Your task to perform on an android device: What's on the menu at Burger King? Image 0: 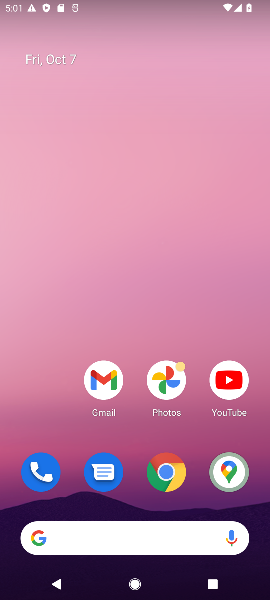
Step 0: click (176, 479)
Your task to perform on an android device: What's on the menu at Burger King? Image 1: 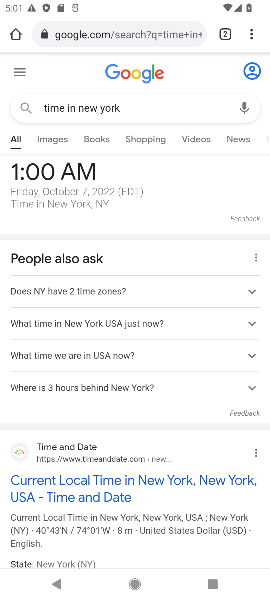
Step 1: click (99, 33)
Your task to perform on an android device: What's on the menu at Burger King? Image 2: 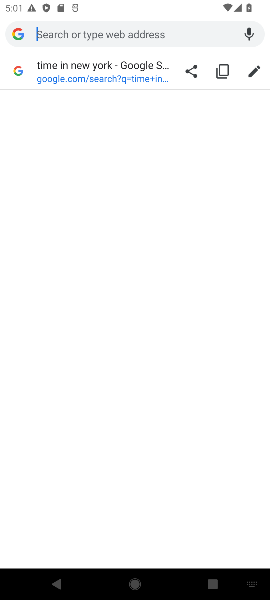
Step 2: type "menu at Burger King"
Your task to perform on an android device: What's on the menu at Burger King? Image 3: 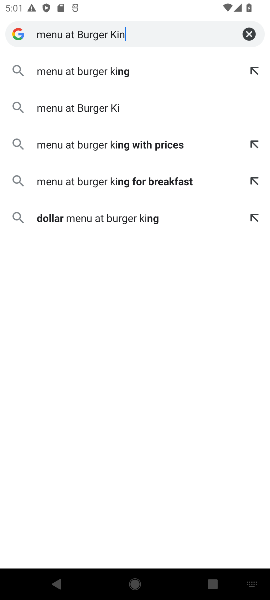
Step 3: type ""
Your task to perform on an android device: What's on the menu at Burger King? Image 4: 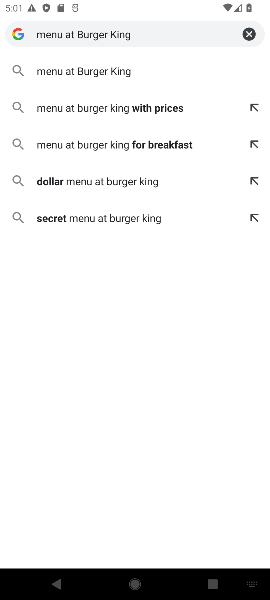
Step 4: click (121, 70)
Your task to perform on an android device: What's on the menu at Burger King? Image 5: 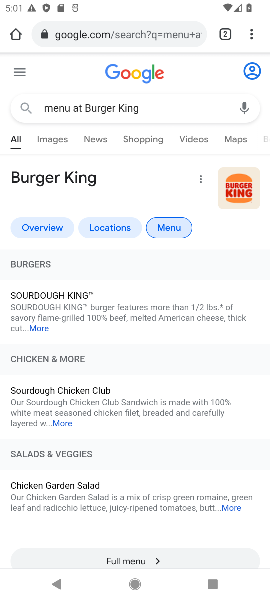
Step 5: drag from (109, 349) to (98, 190)
Your task to perform on an android device: What's on the menu at Burger King? Image 6: 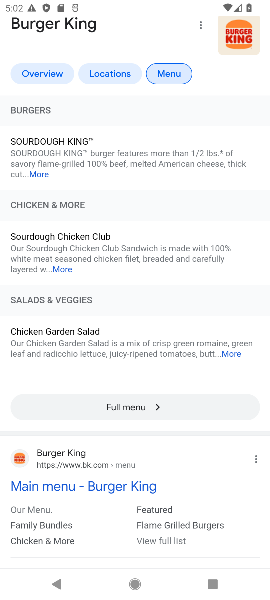
Step 6: click (86, 487)
Your task to perform on an android device: What's on the menu at Burger King? Image 7: 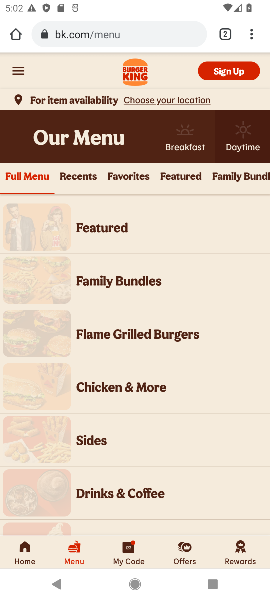
Step 7: task complete